Your task to perform on an android device: turn off notifications settings in the gmail app Image 0: 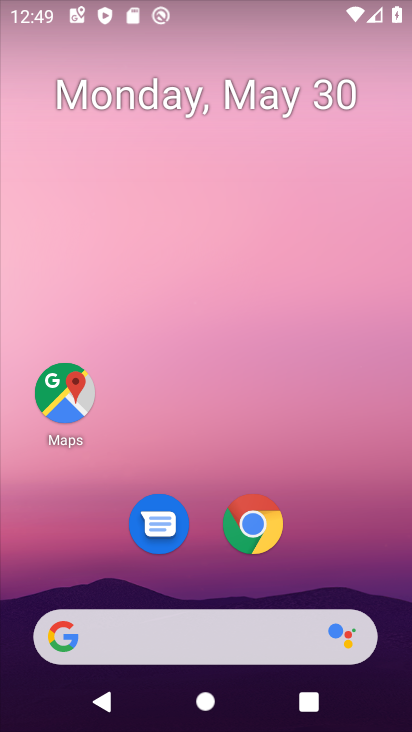
Step 0: drag from (318, 447) to (304, 4)
Your task to perform on an android device: turn off notifications settings in the gmail app Image 1: 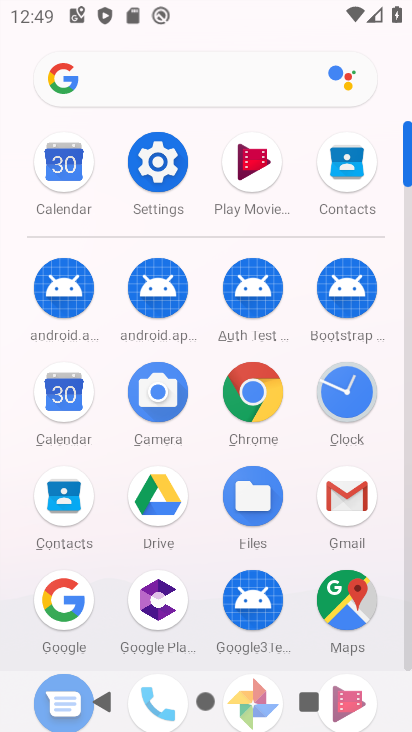
Step 1: click (352, 487)
Your task to perform on an android device: turn off notifications settings in the gmail app Image 2: 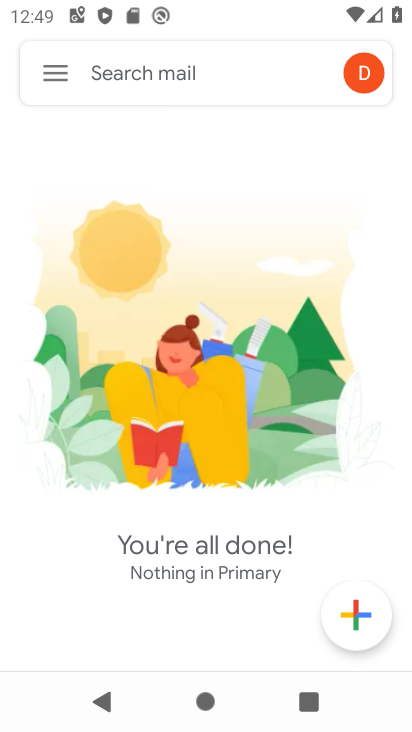
Step 2: click (54, 76)
Your task to perform on an android device: turn off notifications settings in the gmail app Image 3: 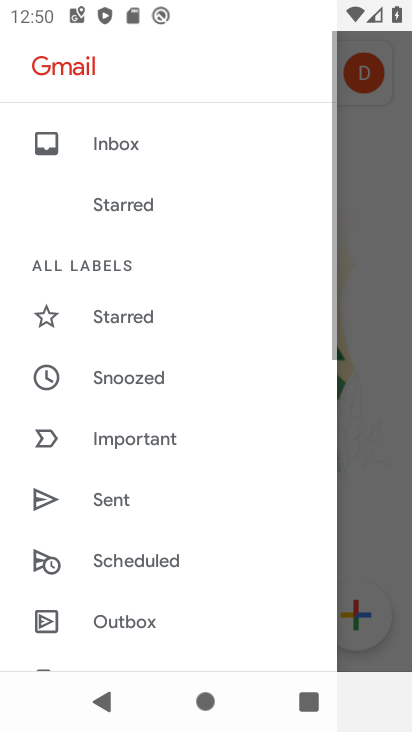
Step 3: drag from (130, 491) to (152, 209)
Your task to perform on an android device: turn off notifications settings in the gmail app Image 4: 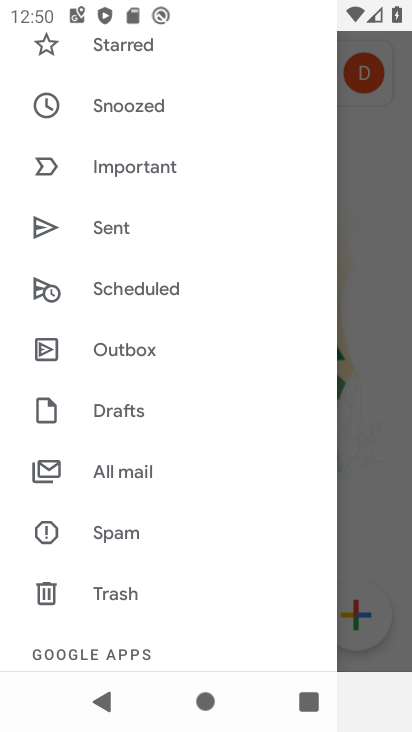
Step 4: drag from (176, 415) to (202, 162)
Your task to perform on an android device: turn off notifications settings in the gmail app Image 5: 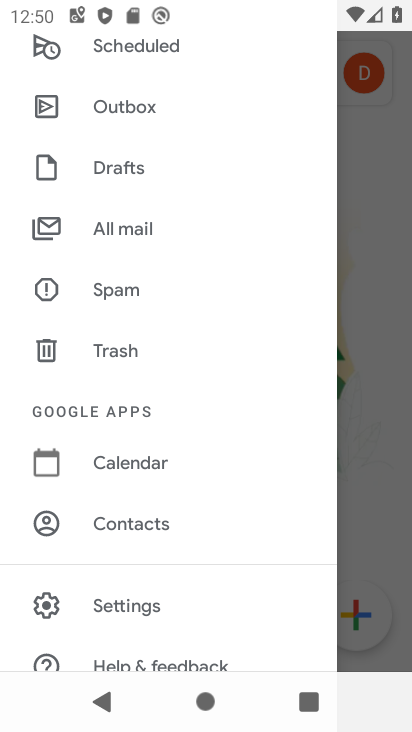
Step 5: click (196, 591)
Your task to perform on an android device: turn off notifications settings in the gmail app Image 6: 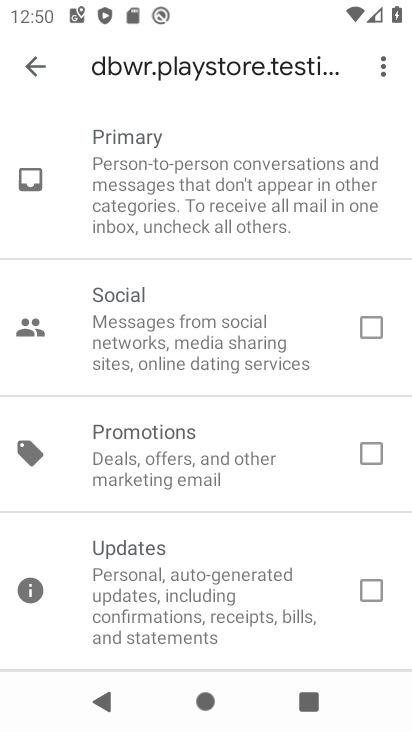
Step 6: drag from (170, 194) to (246, 569)
Your task to perform on an android device: turn off notifications settings in the gmail app Image 7: 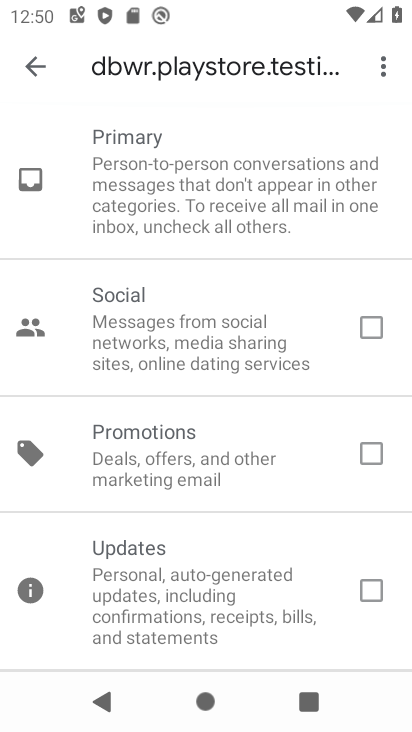
Step 7: drag from (231, 501) to (213, 173)
Your task to perform on an android device: turn off notifications settings in the gmail app Image 8: 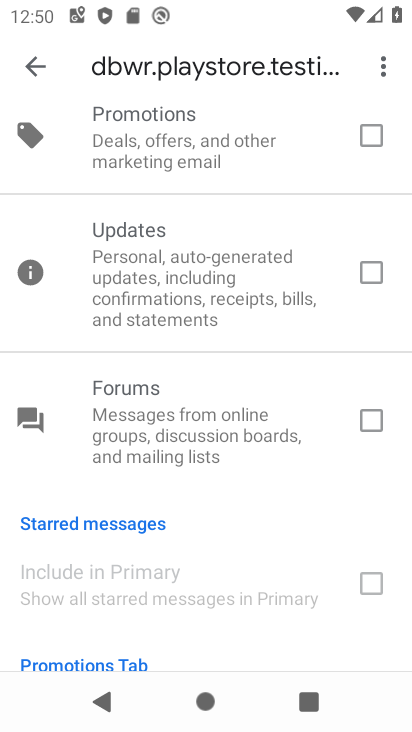
Step 8: drag from (220, 165) to (233, 682)
Your task to perform on an android device: turn off notifications settings in the gmail app Image 9: 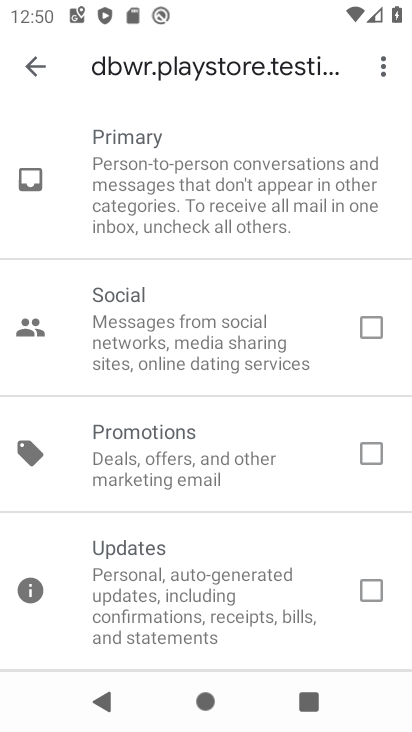
Step 9: click (37, 64)
Your task to perform on an android device: turn off notifications settings in the gmail app Image 10: 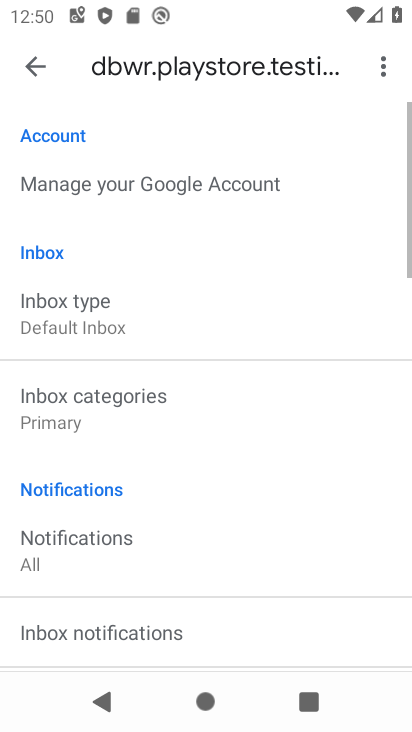
Step 10: drag from (176, 209) to (227, 556)
Your task to perform on an android device: turn off notifications settings in the gmail app Image 11: 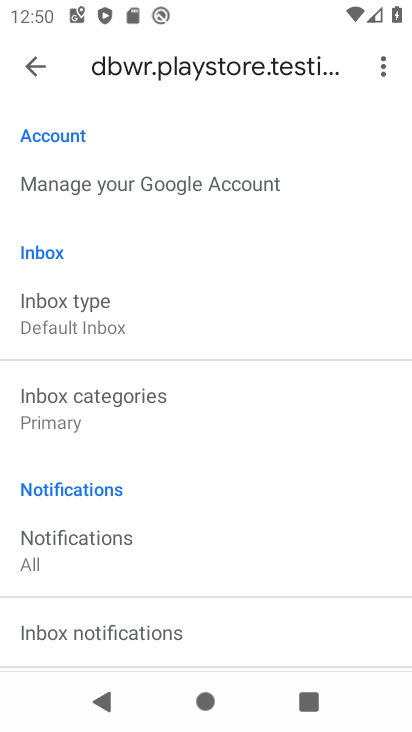
Step 11: drag from (194, 442) to (236, 40)
Your task to perform on an android device: turn off notifications settings in the gmail app Image 12: 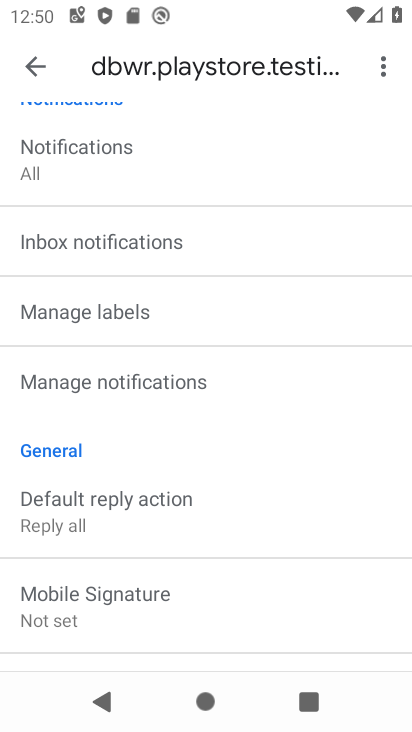
Step 12: click (250, 381)
Your task to perform on an android device: turn off notifications settings in the gmail app Image 13: 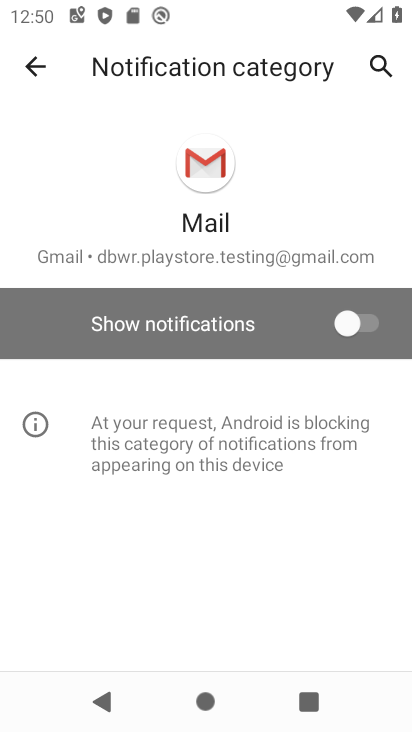
Step 13: task complete